Your task to perform on an android device: turn off data saver in the chrome app Image 0: 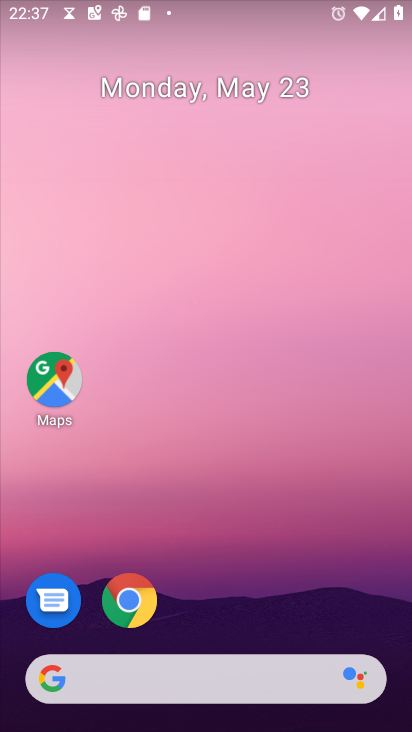
Step 0: click (130, 598)
Your task to perform on an android device: turn off data saver in the chrome app Image 1: 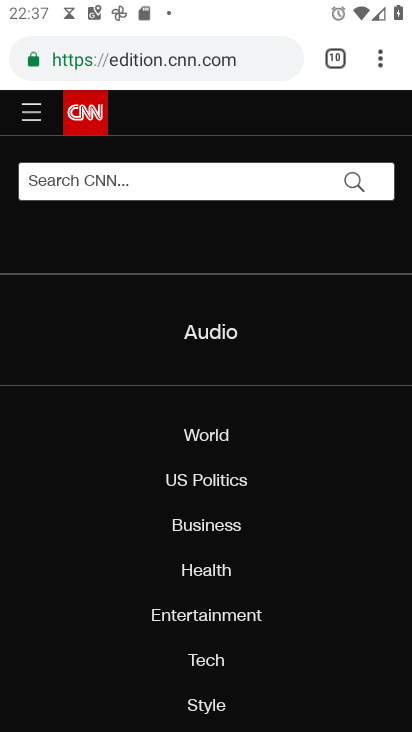
Step 1: click (379, 65)
Your task to perform on an android device: turn off data saver in the chrome app Image 2: 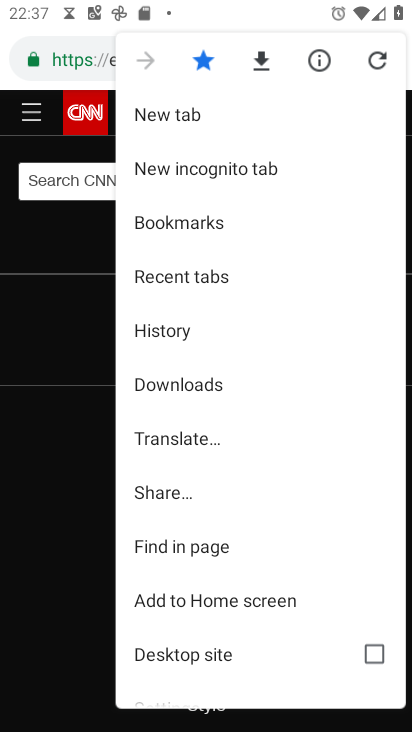
Step 2: drag from (184, 663) to (190, 285)
Your task to perform on an android device: turn off data saver in the chrome app Image 3: 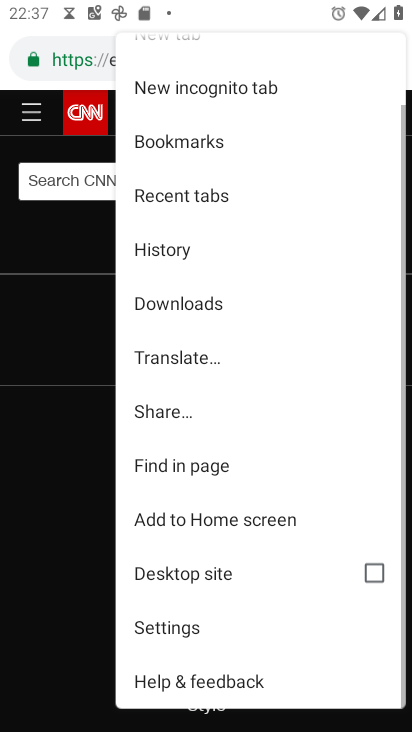
Step 3: click (168, 627)
Your task to perform on an android device: turn off data saver in the chrome app Image 4: 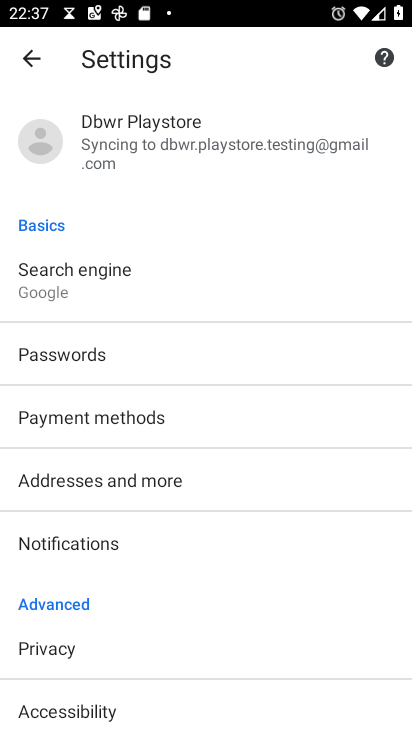
Step 4: drag from (146, 648) to (149, 273)
Your task to perform on an android device: turn off data saver in the chrome app Image 5: 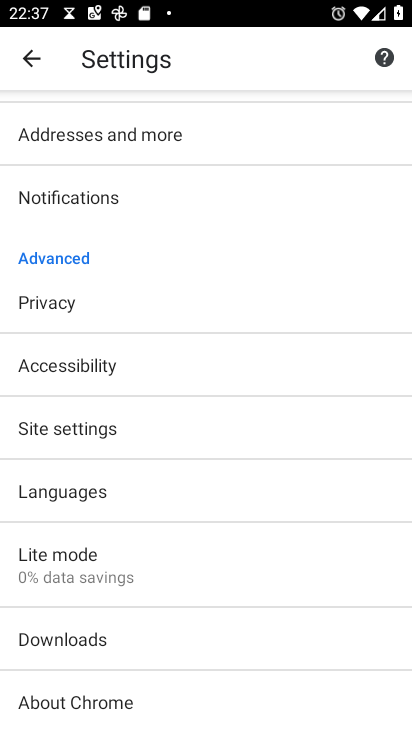
Step 5: click (73, 566)
Your task to perform on an android device: turn off data saver in the chrome app Image 6: 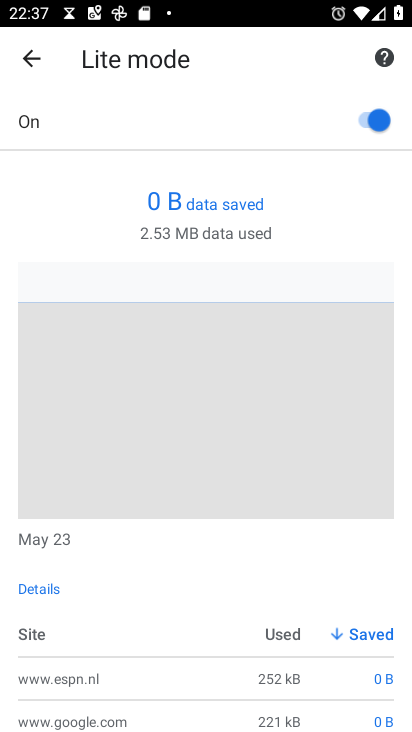
Step 6: click (362, 120)
Your task to perform on an android device: turn off data saver in the chrome app Image 7: 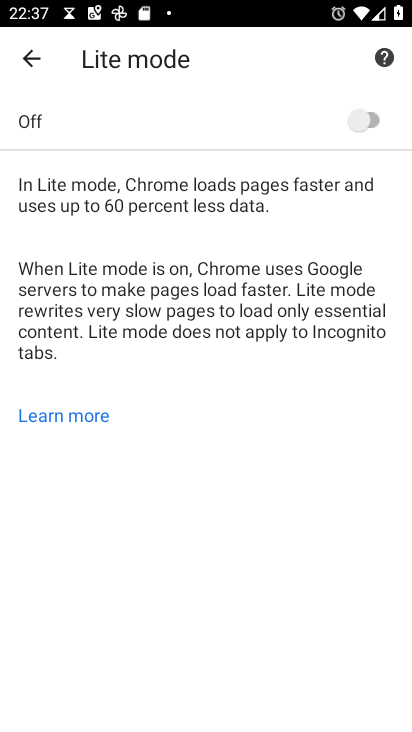
Step 7: task complete